Your task to perform on an android device: Go to CNN.com Image 0: 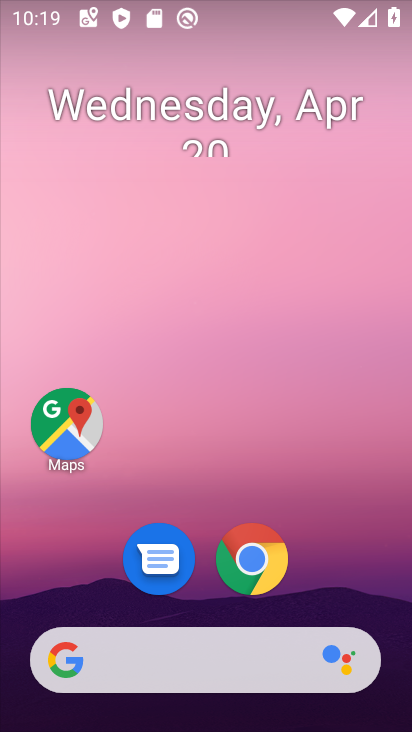
Step 0: click (248, 558)
Your task to perform on an android device: Go to CNN.com Image 1: 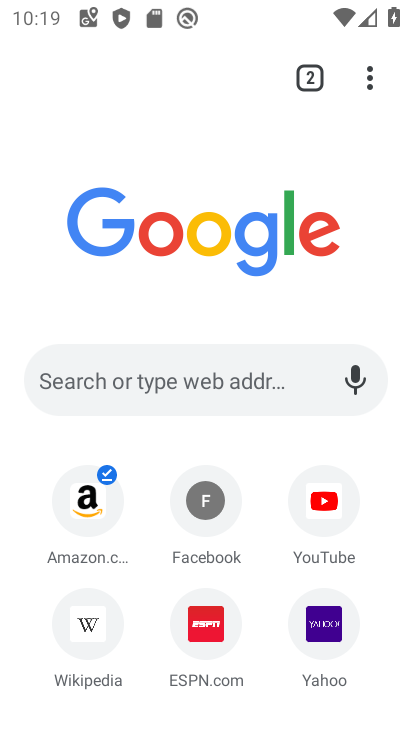
Step 1: click (217, 375)
Your task to perform on an android device: Go to CNN.com Image 2: 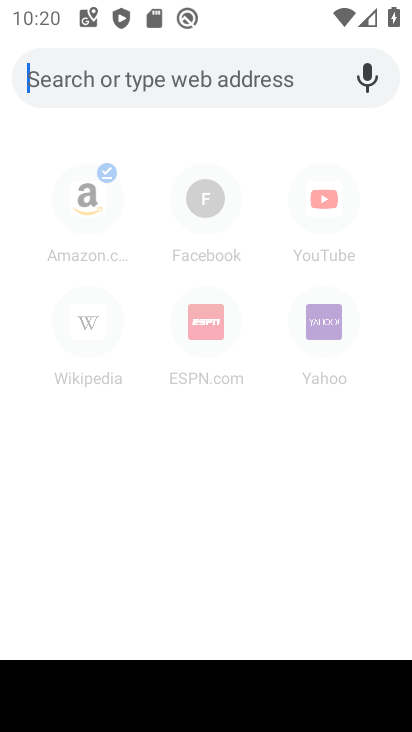
Step 2: type "CNN.com"
Your task to perform on an android device: Go to CNN.com Image 3: 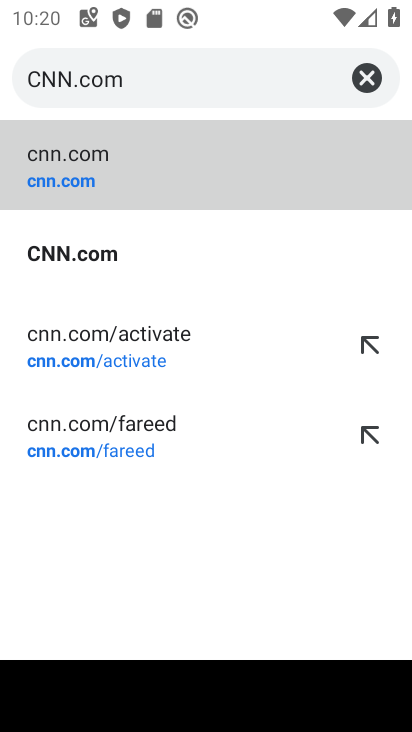
Step 3: click (116, 155)
Your task to perform on an android device: Go to CNN.com Image 4: 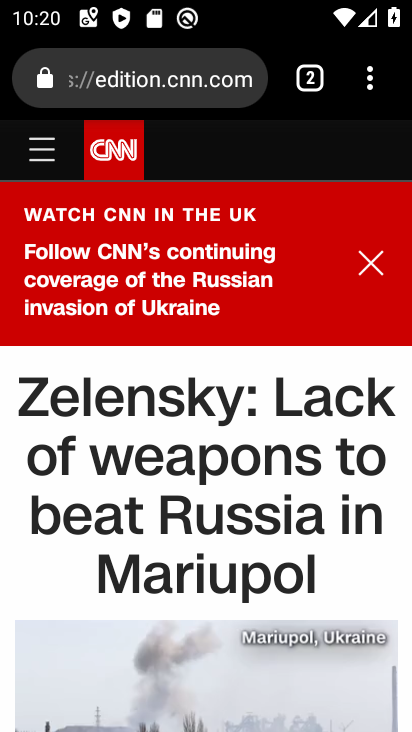
Step 4: task complete